Your task to perform on an android device: manage bookmarks in the chrome app Image 0: 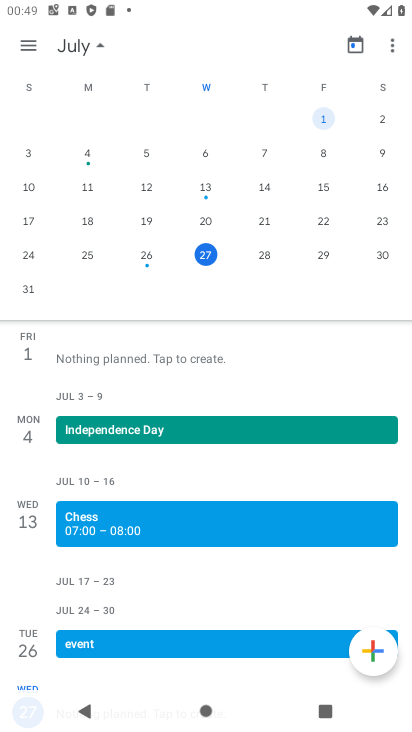
Step 0: press home button
Your task to perform on an android device: manage bookmarks in the chrome app Image 1: 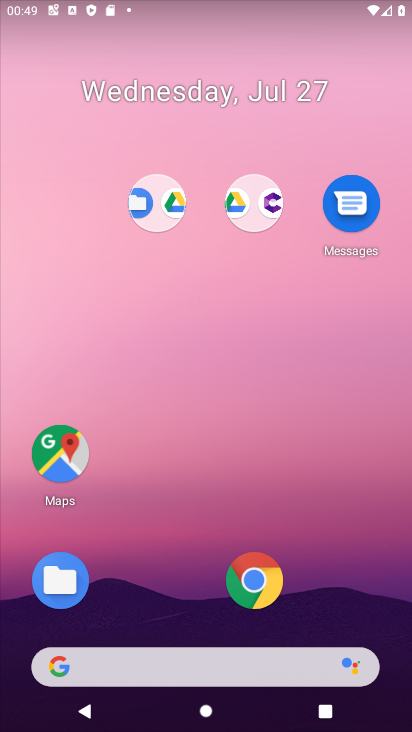
Step 1: click (252, 567)
Your task to perform on an android device: manage bookmarks in the chrome app Image 2: 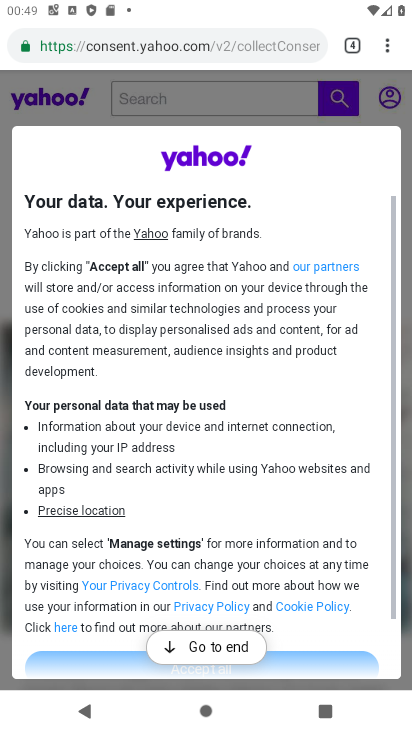
Step 2: click (388, 54)
Your task to perform on an android device: manage bookmarks in the chrome app Image 3: 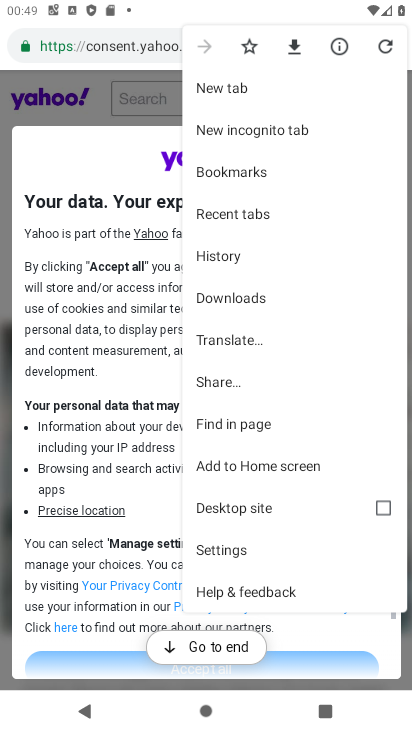
Step 3: click (237, 168)
Your task to perform on an android device: manage bookmarks in the chrome app Image 4: 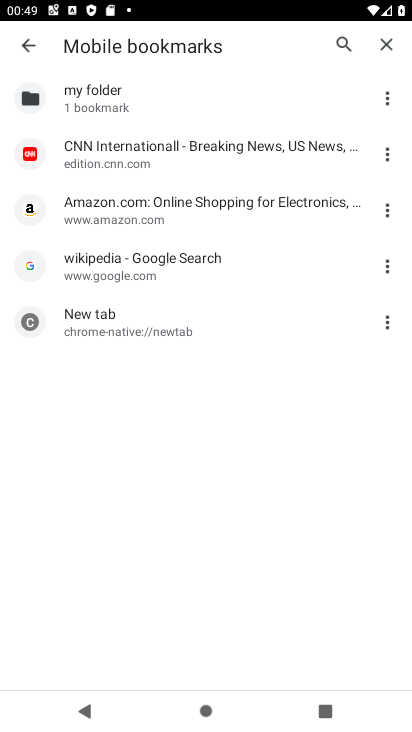
Step 4: click (394, 271)
Your task to perform on an android device: manage bookmarks in the chrome app Image 5: 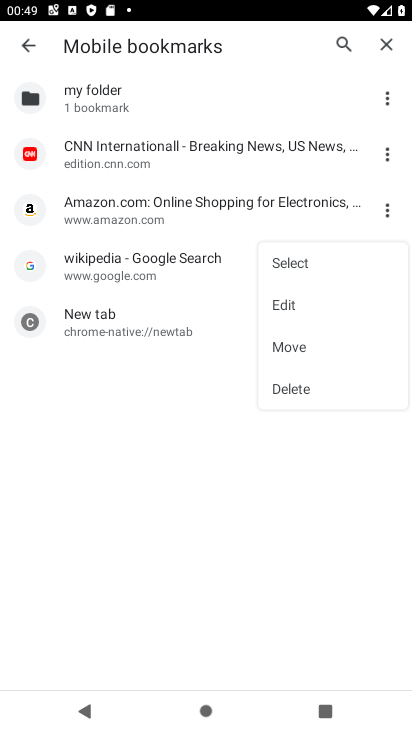
Step 5: click (298, 397)
Your task to perform on an android device: manage bookmarks in the chrome app Image 6: 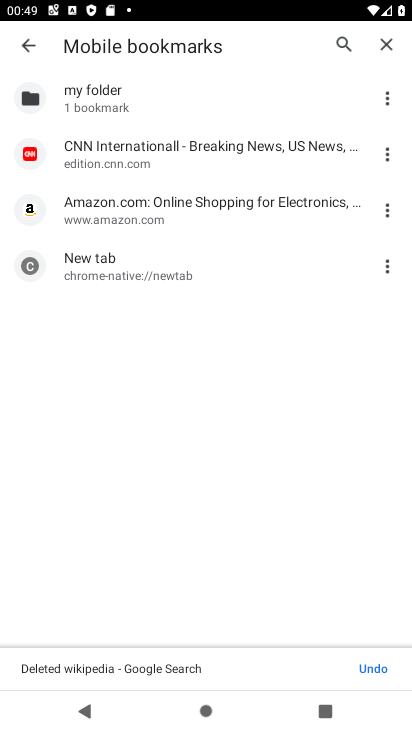
Step 6: task complete